Your task to perform on an android device: Go to Reddit.com Image 0: 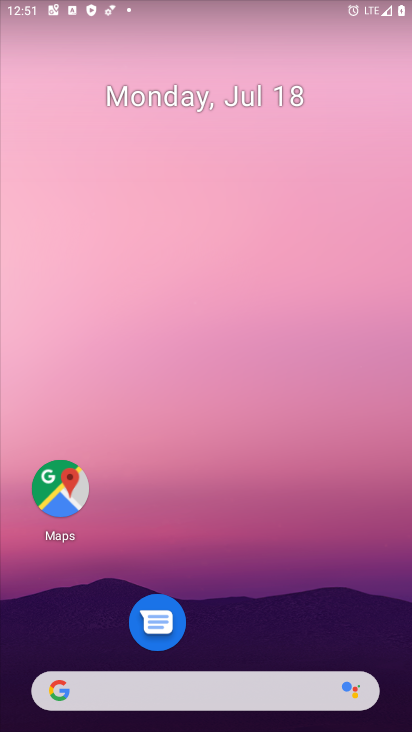
Step 0: click (212, 701)
Your task to perform on an android device: Go to Reddit.com Image 1: 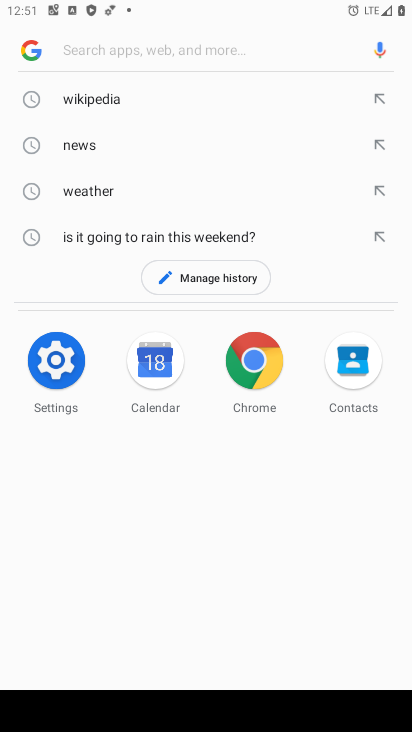
Step 1: type "reddit.com"
Your task to perform on an android device: Go to Reddit.com Image 2: 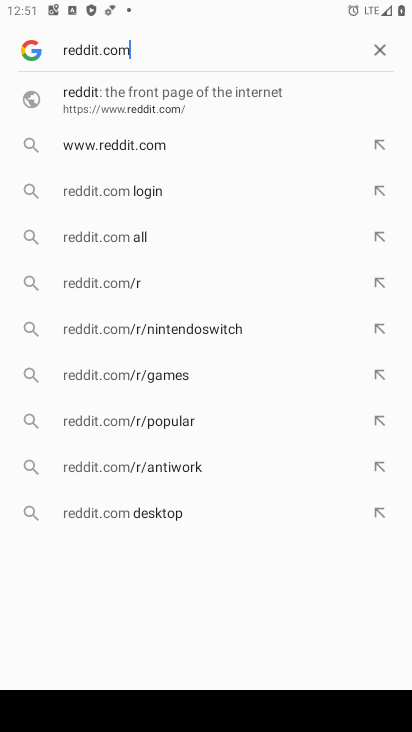
Step 2: click (253, 83)
Your task to perform on an android device: Go to Reddit.com Image 3: 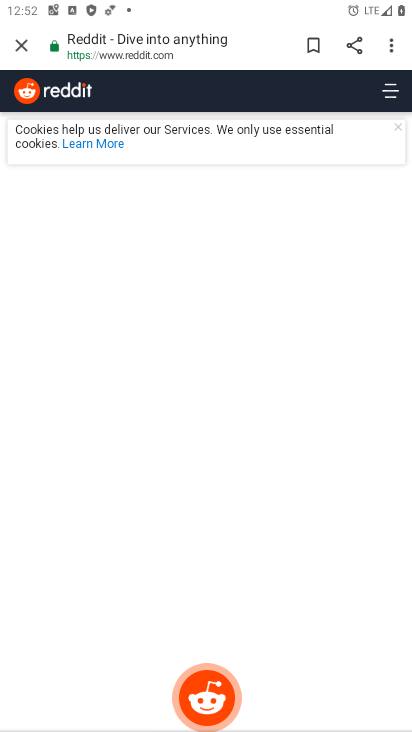
Step 3: task complete